Your task to perform on an android device: open app "Chime – Mobile Banking" (install if not already installed) Image 0: 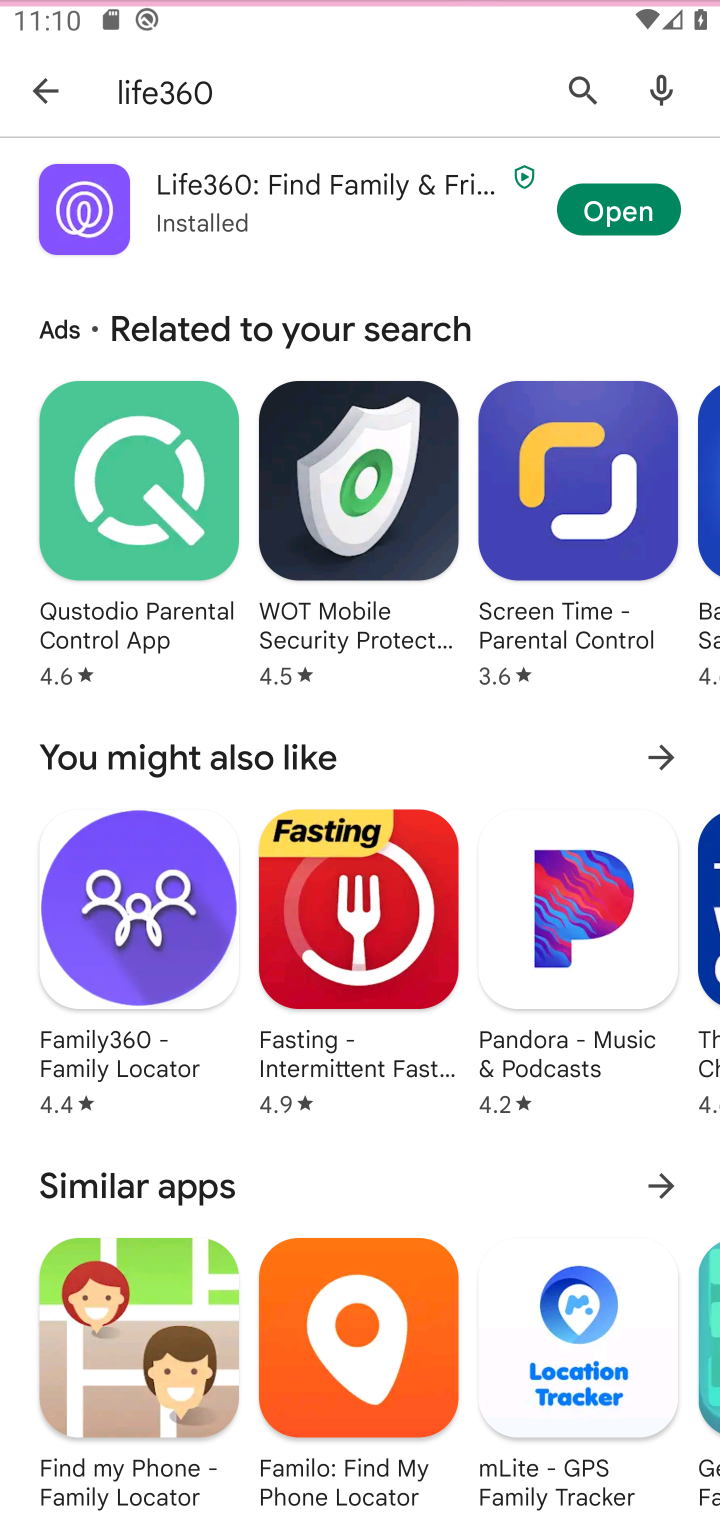
Step 0: press home button
Your task to perform on an android device: open app "Chime – Mobile Banking" (install if not already installed) Image 1: 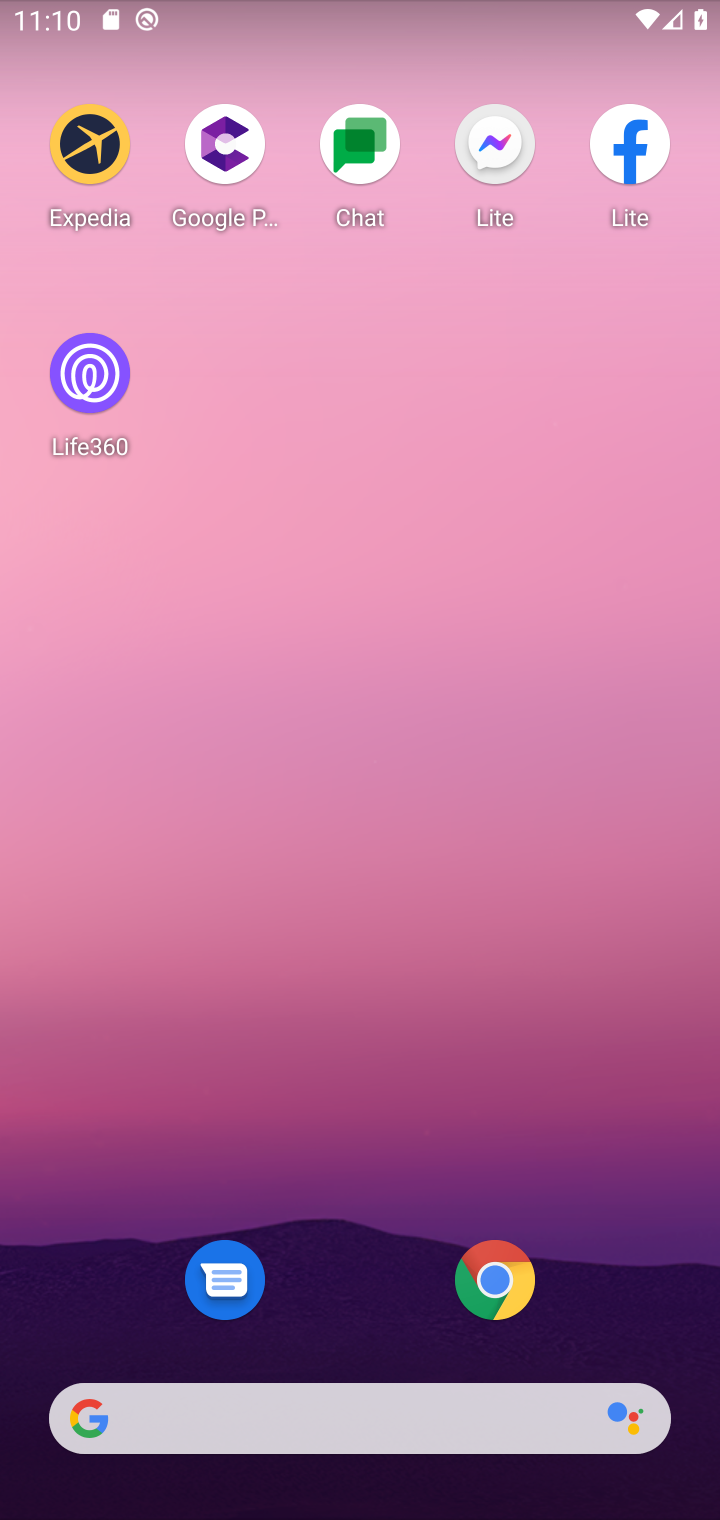
Step 1: drag from (330, 1247) to (530, 30)
Your task to perform on an android device: open app "Chime – Mobile Banking" (install if not already installed) Image 2: 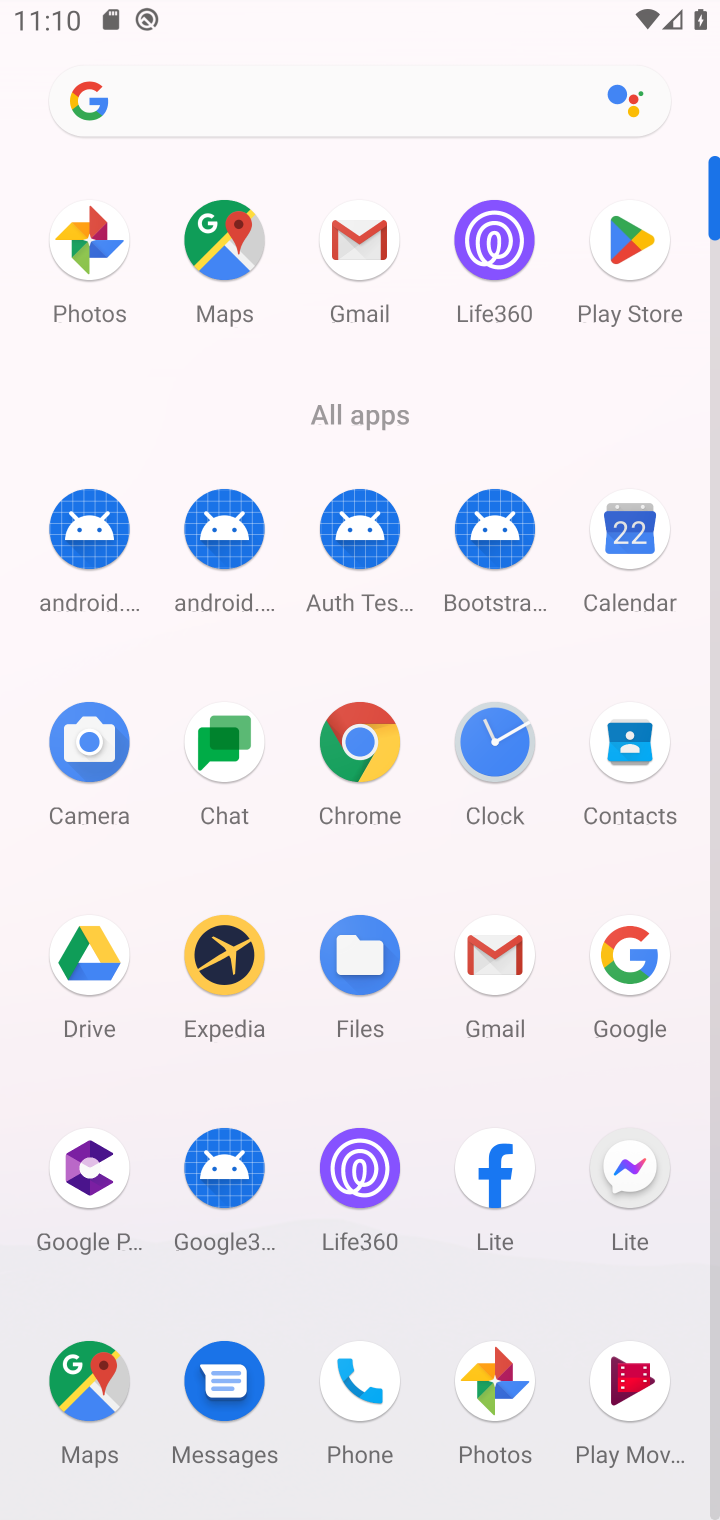
Step 2: click (628, 250)
Your task to perform on an android device: open app "Chime – Mobile Banking" (install if not already installed) Image 3: 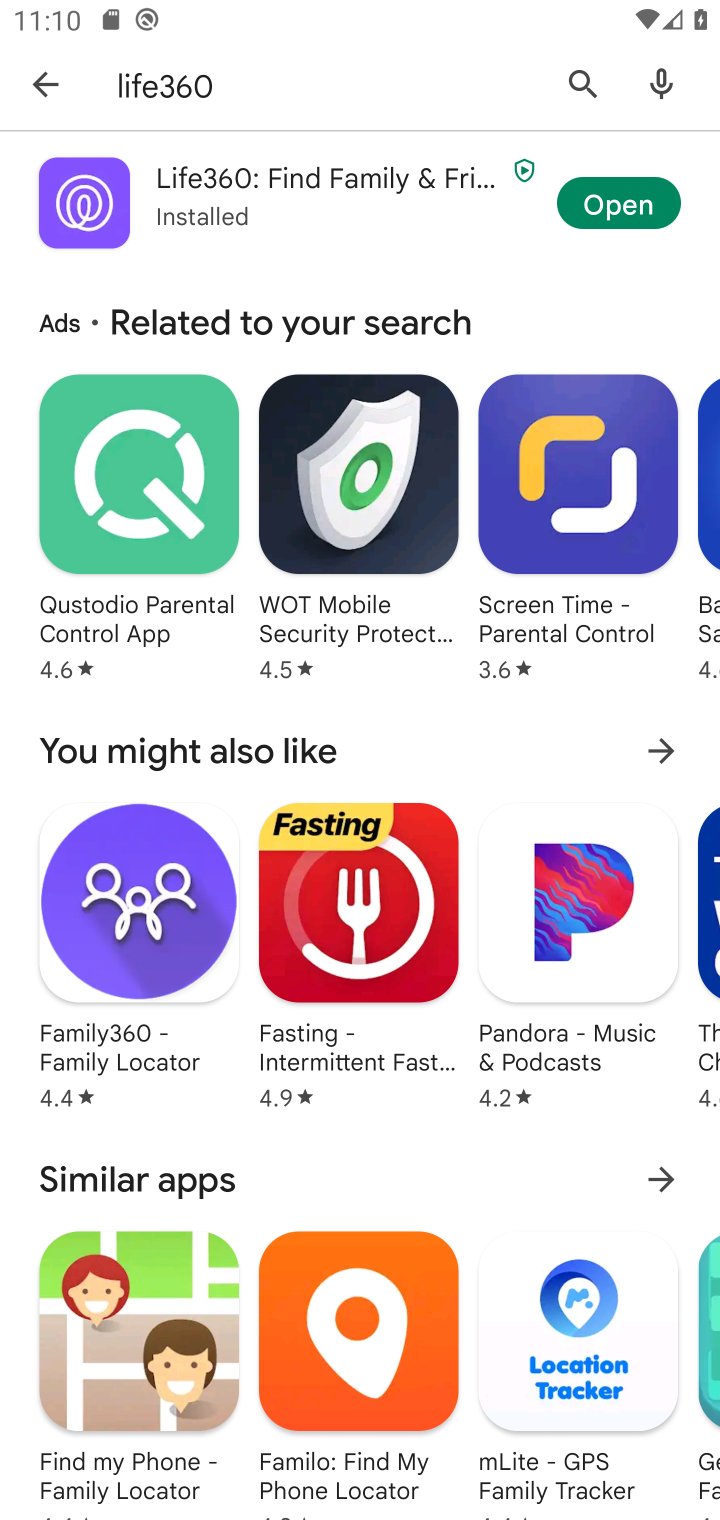
Step 3: click (597, 80)
Your task to perform on an android device: open app "Chime – Mobile Banking" (install if not already installed) Image 4: 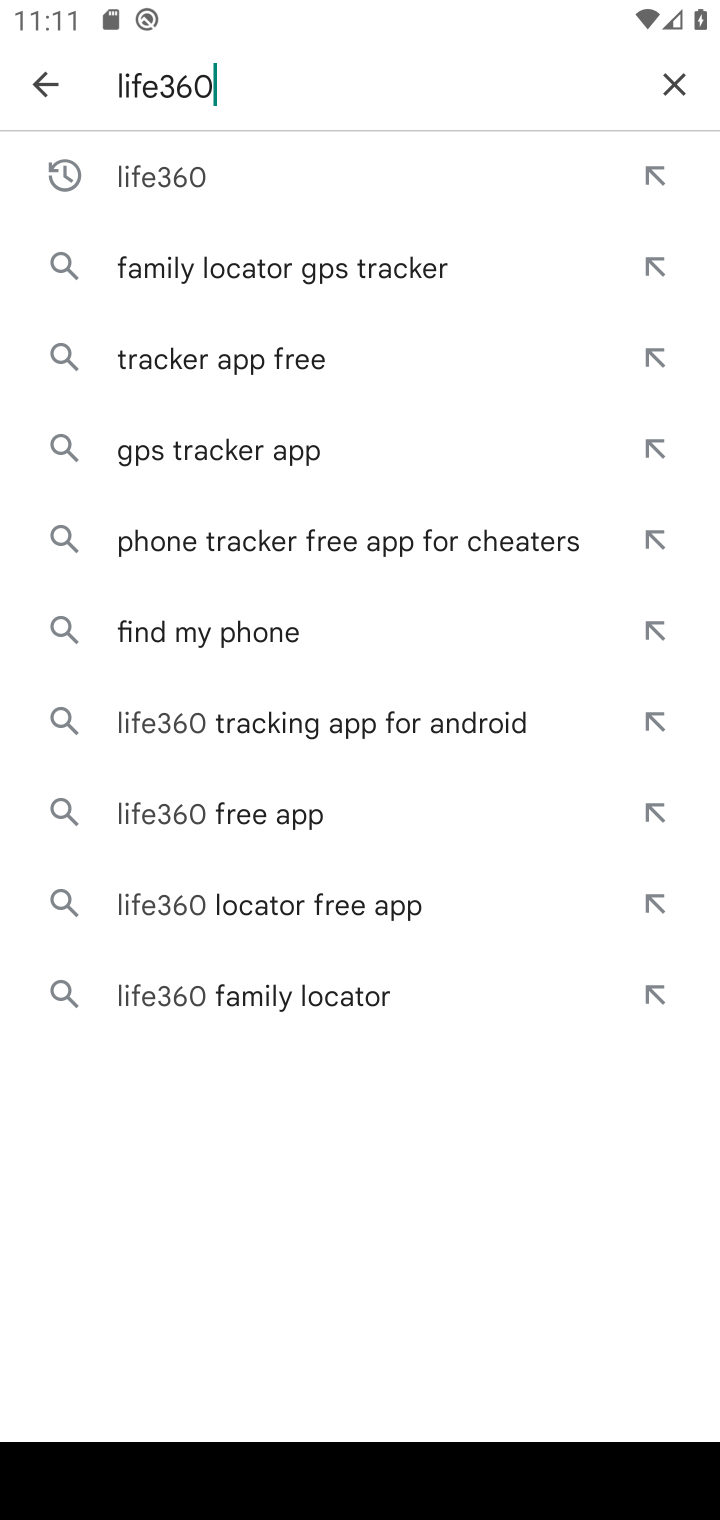
Step 4: click (682, 85)
Your task to perform on an android device: open app "Chime – Mobile Banking" (install if not already installed) Image 5: 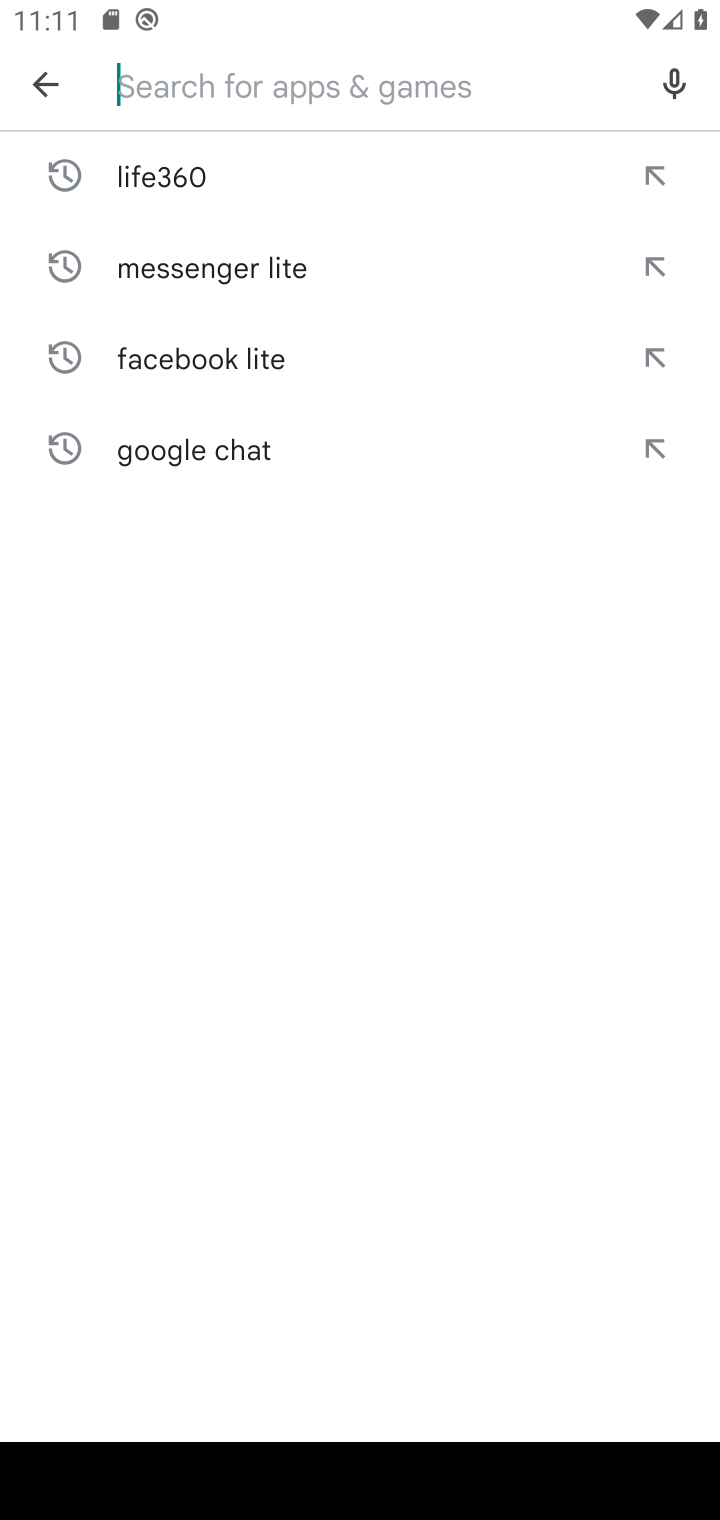
Step 5: type "Chime"
Your task to perform on an android device: open app "Chime – Mobile Banking" (install if not already installed) Image 6: 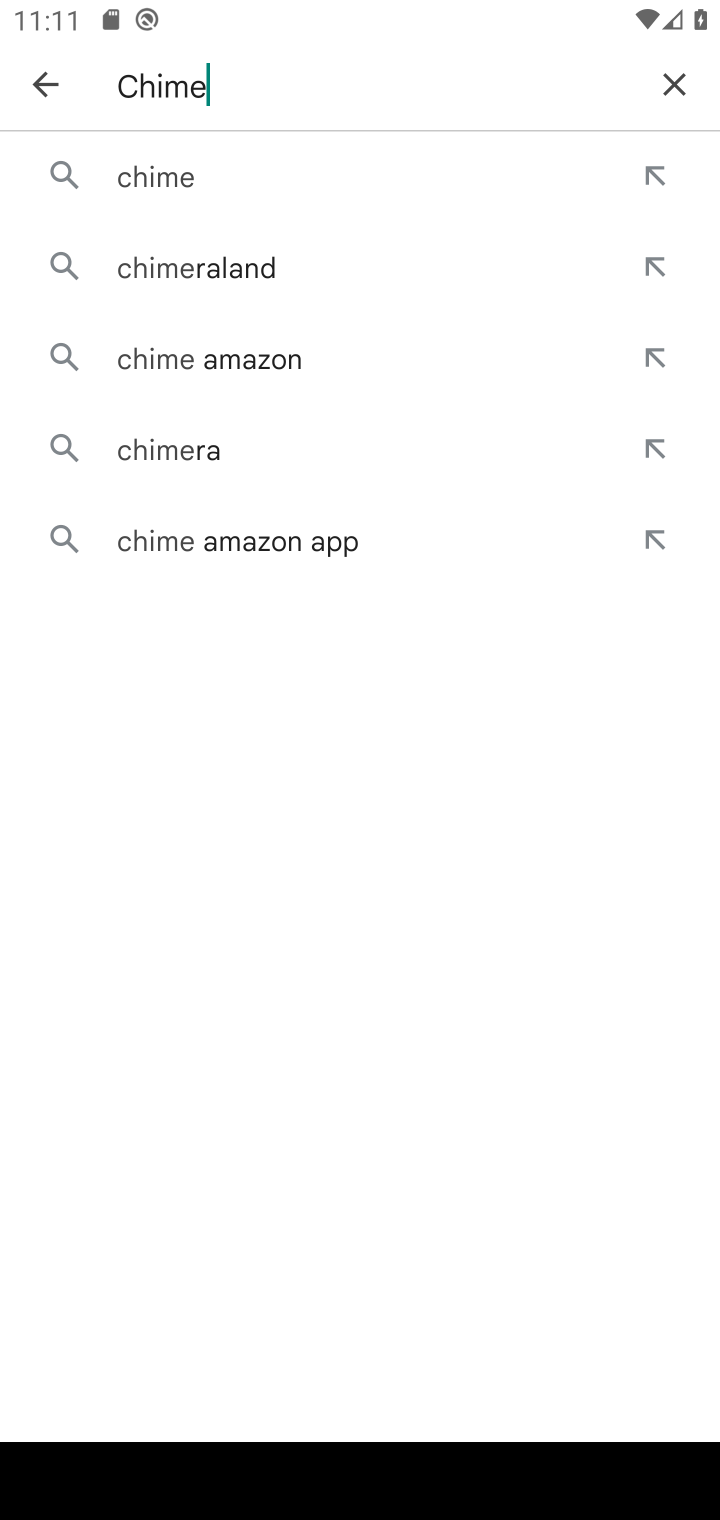
Step 6: click (184, 194)
Your task to perform on an android device: open app "Chime – Mobile Banking" (install if not already installed) Image 7: 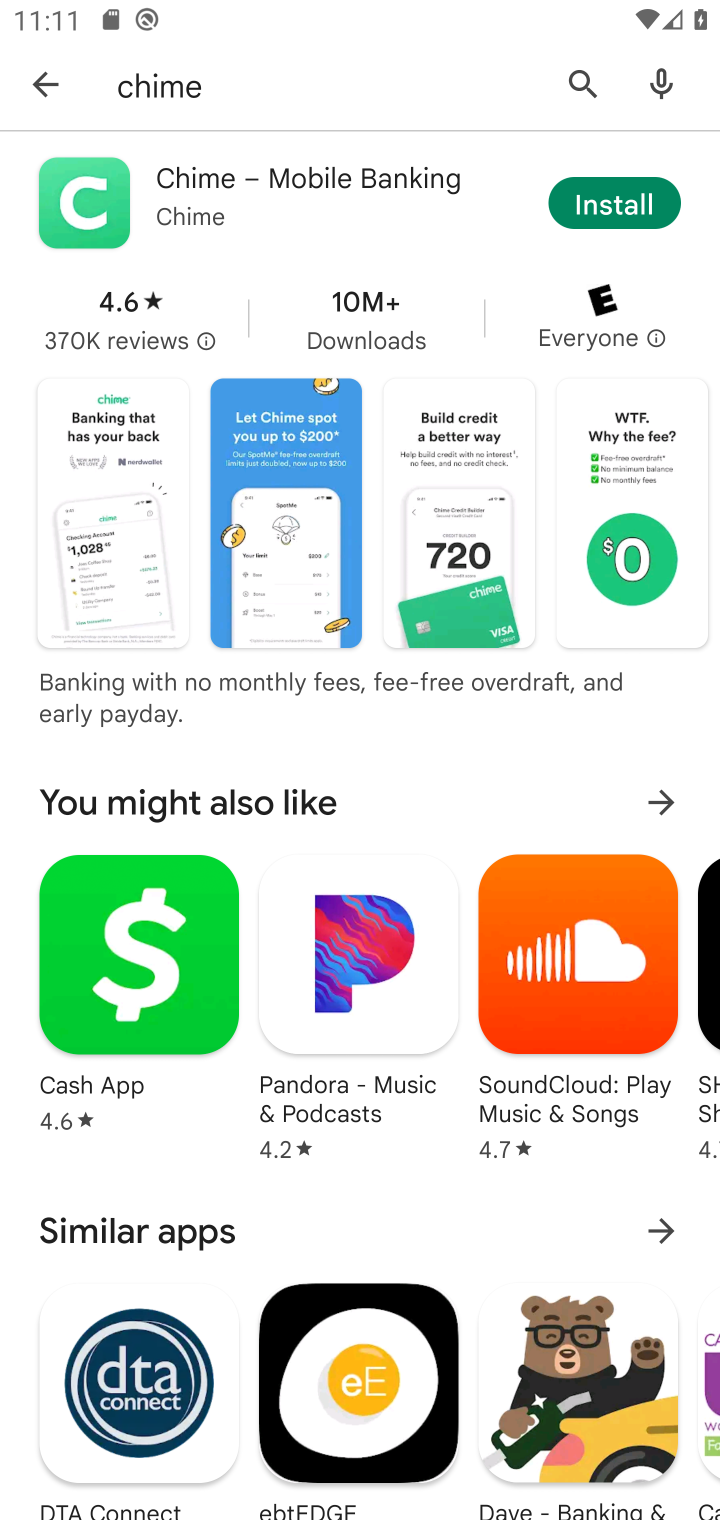
Step 7: click (625, 208)
Your task to perform on an android device: open app "Chime – Mobile Banking" (install if not already installed) Image 8: 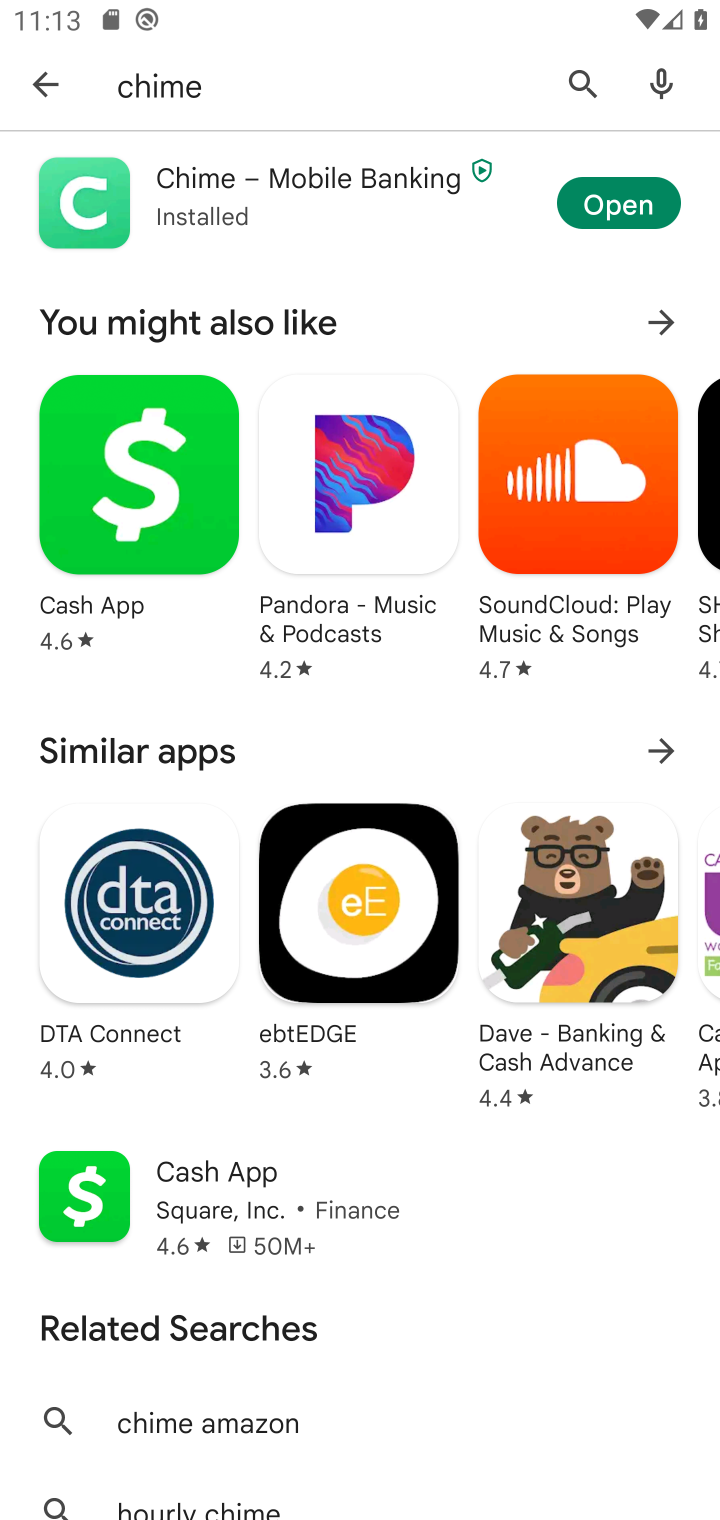
Step 8: click (614, 202)
Your task to perform on an android device: open app "Chime – Mobile Banking" (install if not already installed) Image 9: 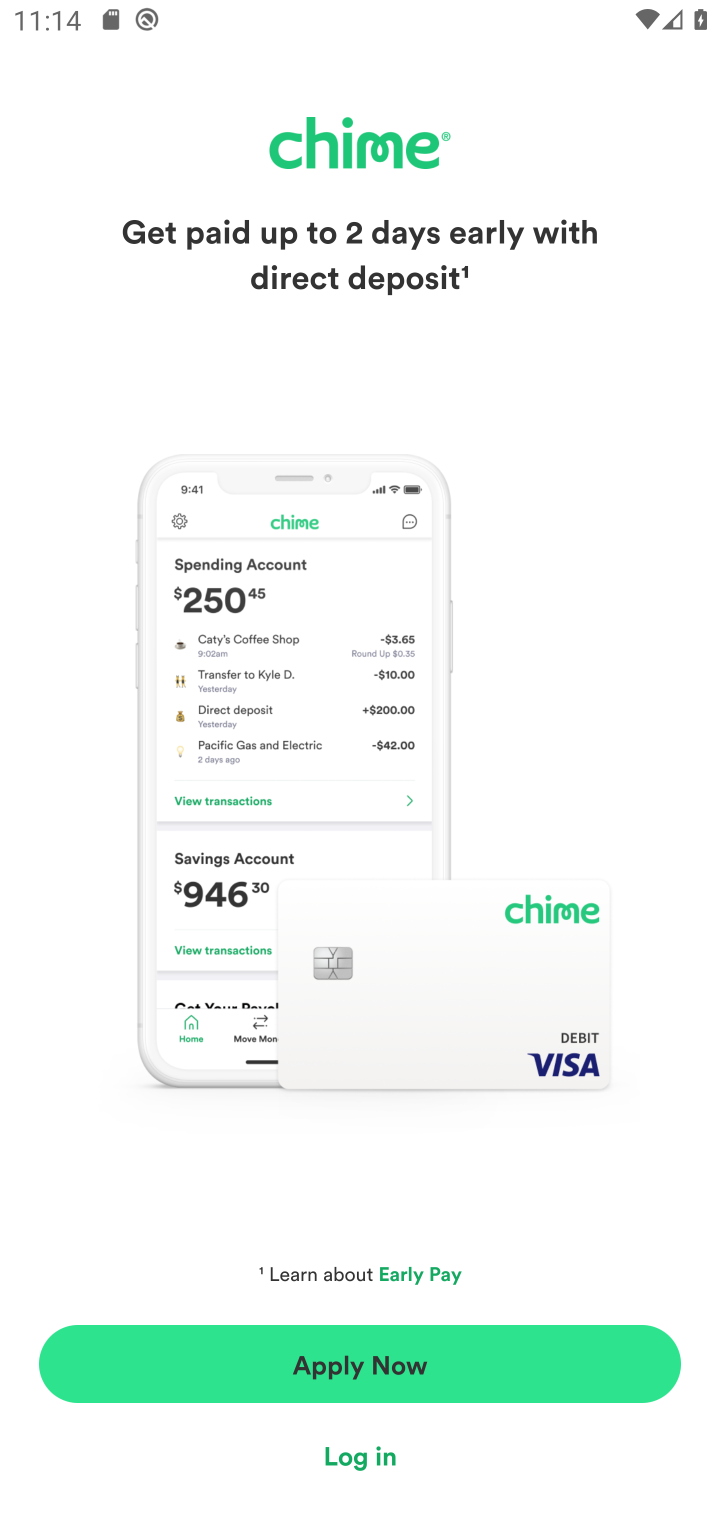
Step 9: click (369, 1444)
Your task to perform on an android device: open app "Chime – Mobile Banking" (install if not already installed) Image 10: 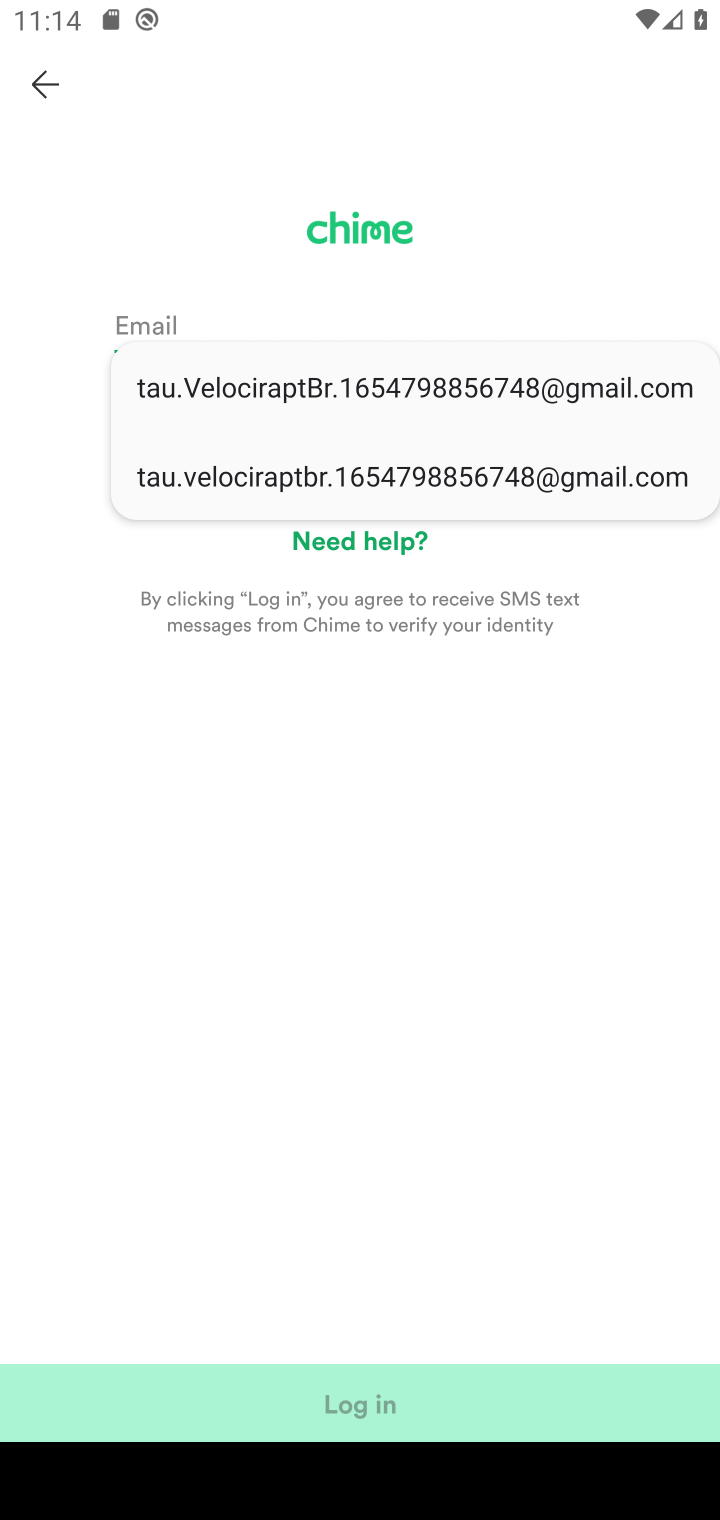
Step 10: task complete